Your task to perform on an android device: turn on priority inbox in the gmail app Image 0: 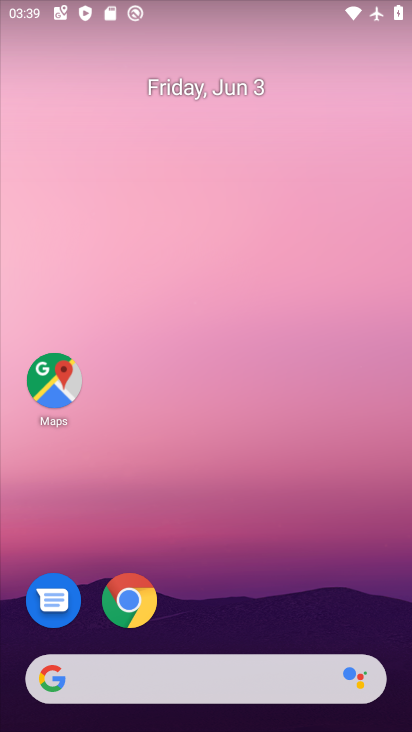
Step 0: drag from (234, 650) to (345, 0)
Your task to perform on an android device: turn on priority inbox in the gmail app Image 1: 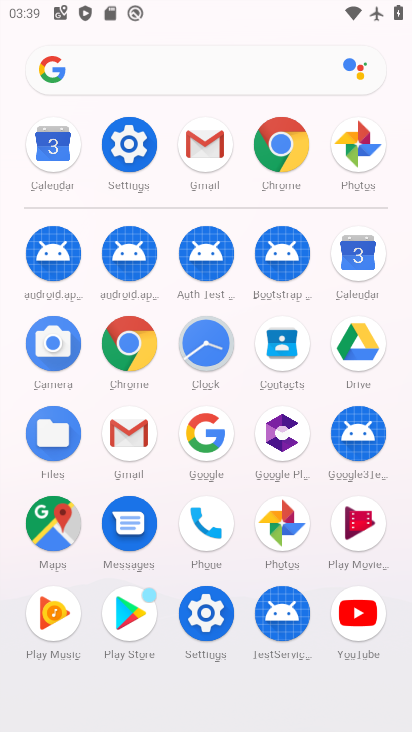
Step 1: click (135, 446)
Your task to perform on an android device: turn on priority inbox in the gmail app Image 2: 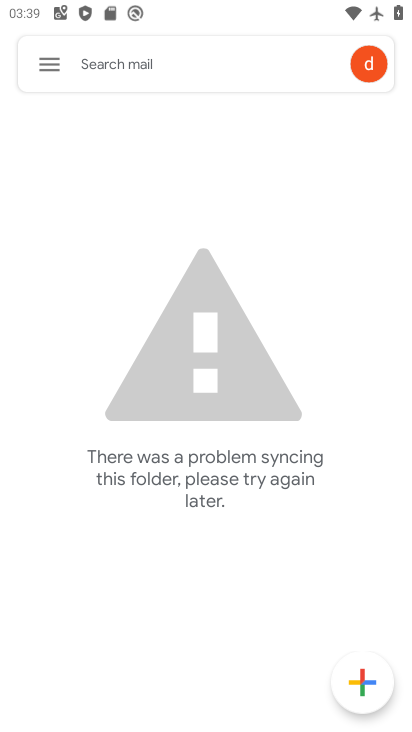
Step 2: click (46, 55)
Your task to perform on an android device: turn on priority inbox in the gmail app Image 3: 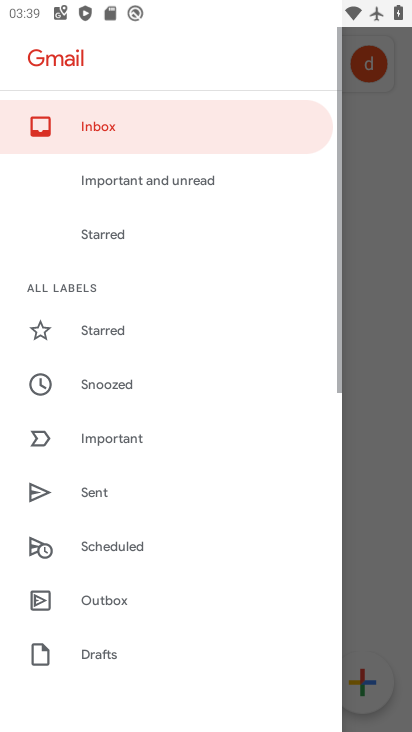
Step 3: drag from (137, 649) to (235, 141)
Your task to perform on an android device: turn on priority inbox in the gmail app Image 4: 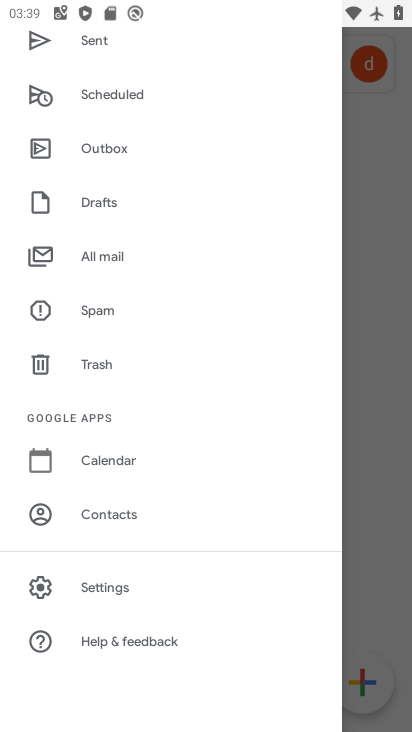
Step 4: click (115, 589)
Your task to perform on an android device: turn on priority inbox in the gmail app Image 5: 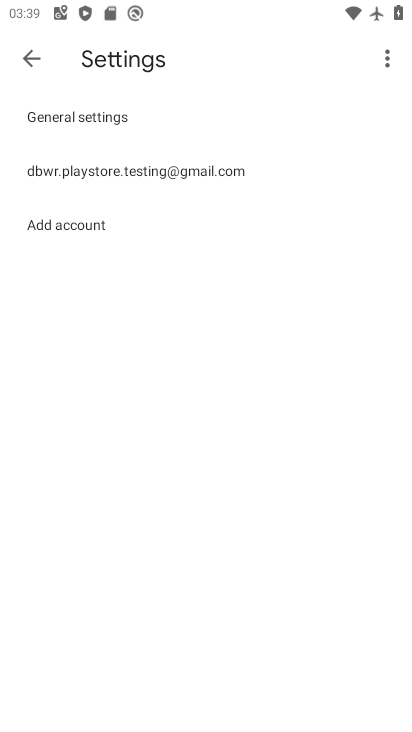
Step 5: click (113, 166)
Your task to perform on an android device: turn on priority inbox in the gmail app Image 6: 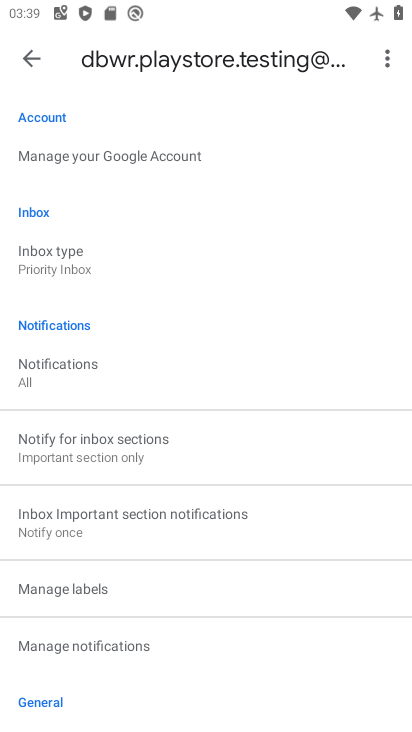
Step 6: task complete